Your task to perform on an android device: Open Amazon Image 0: 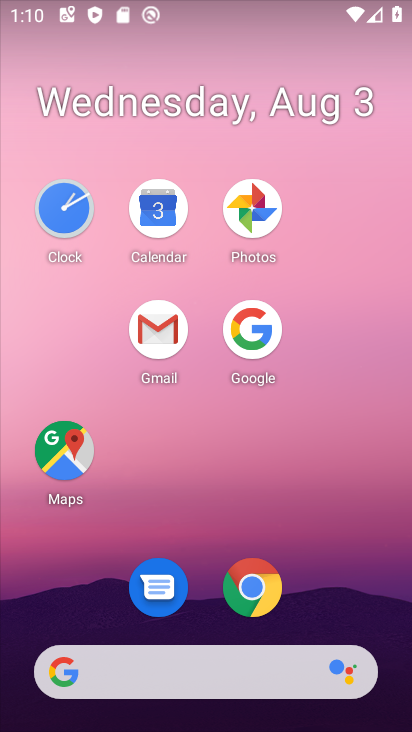
Step 0: click (265, 582)
Your task to perform on an android device: Open Amazon Image 1: 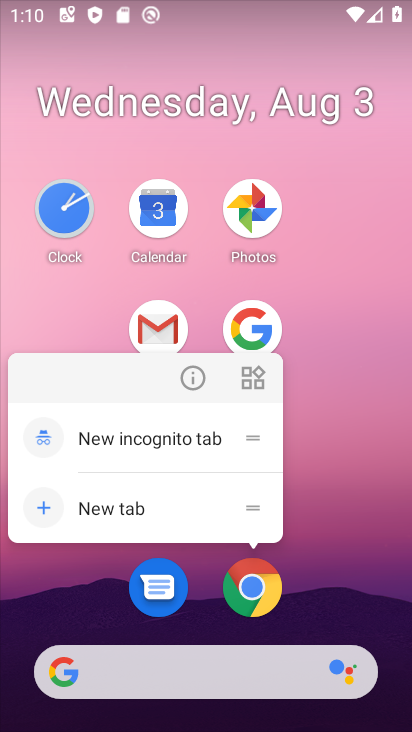
Step 1: click (255, 588)
Your task to perform on an android device: Open Amazon Image 2: 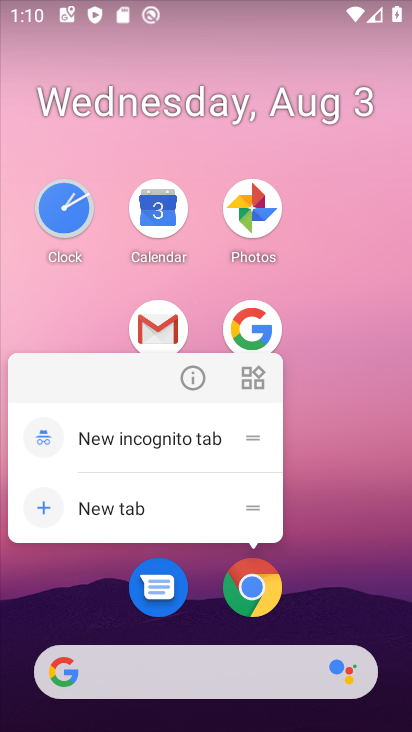
Step 2: click (255, 588)
Your task to perform on an android device: Open Amazon Image 3: 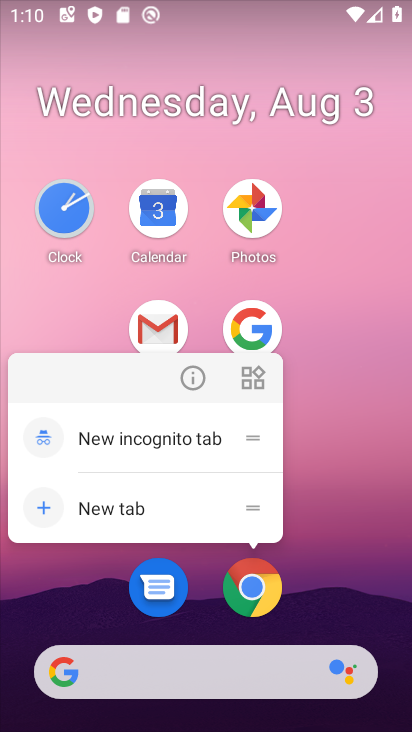
Step 3: click (255, 588)
Your task to perform on an android device: Open Amazon Image 4: 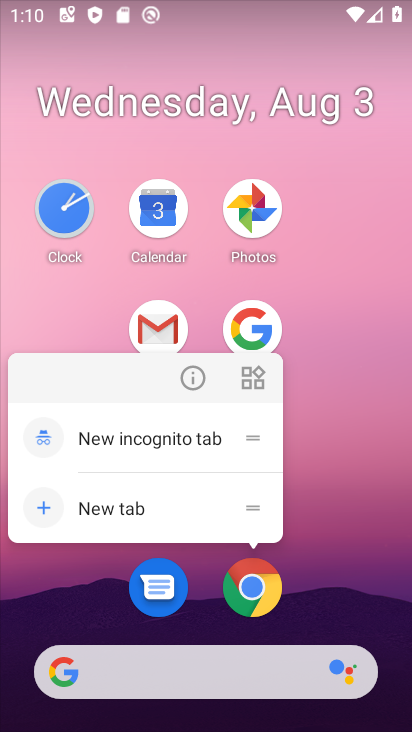
Step 4: click (255, 588)
Your task to perform on an android device: Open Amazon Image 5: 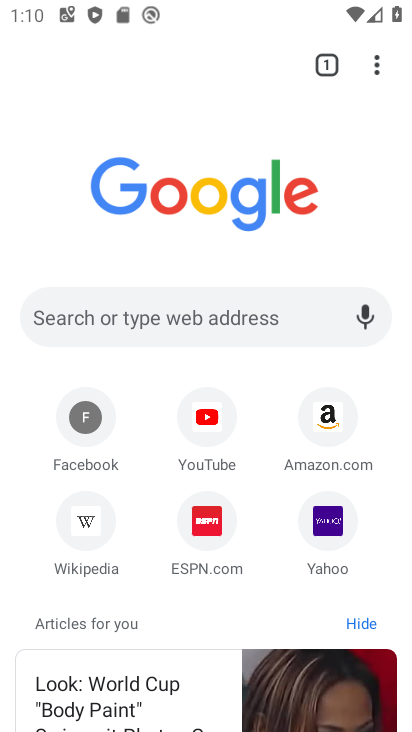
Step 5: click (320, 411)
Your task to perform on an android device: Open Amazon Image 6: 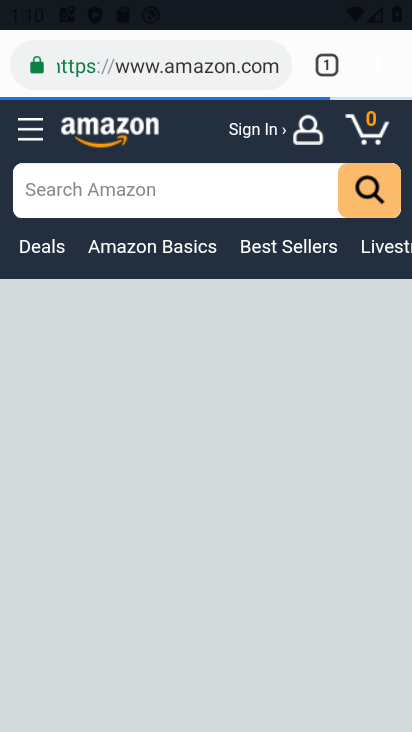
Step 6: task complete